Your task to perform on an android device: clear history in the chrome app Image 0: 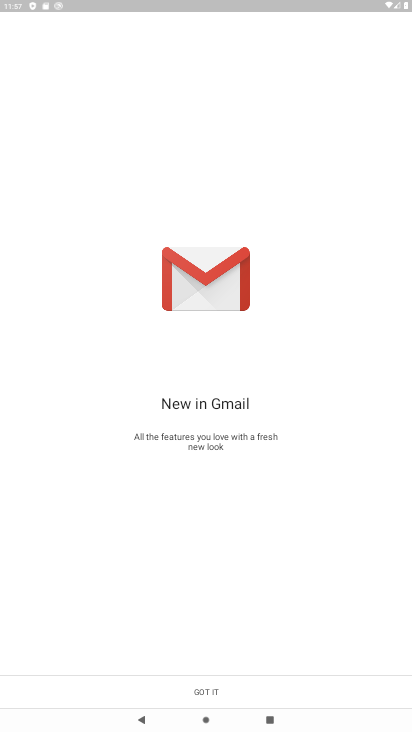
Step 0: press home button
Your task to perform on an android device: clear history in the chrome app Image 1: 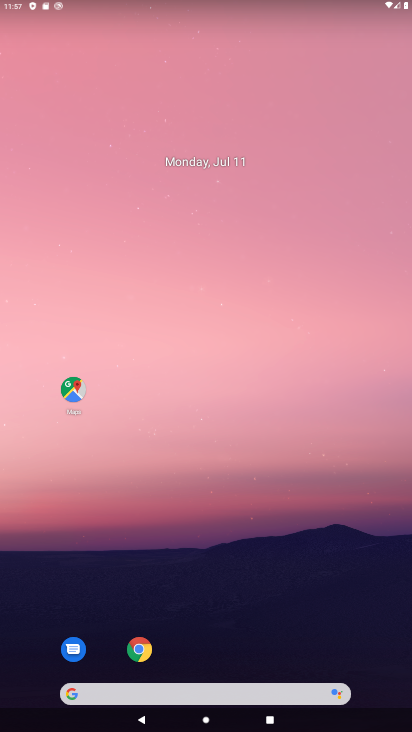
Step 1: drag from (225, 424) to (302, 157)
Your task to perform on an android device: clear history in the chrome app Image 2: 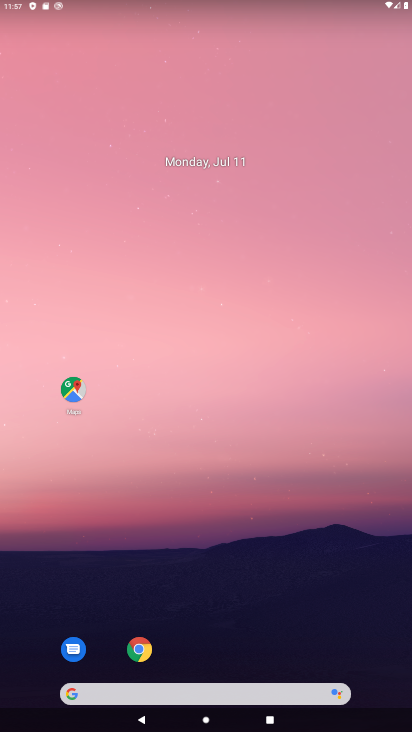
Step 2: drag from (194, 671) to (294, 2)
Your task to perform on an android device: clear history in the chrome app Image 3: 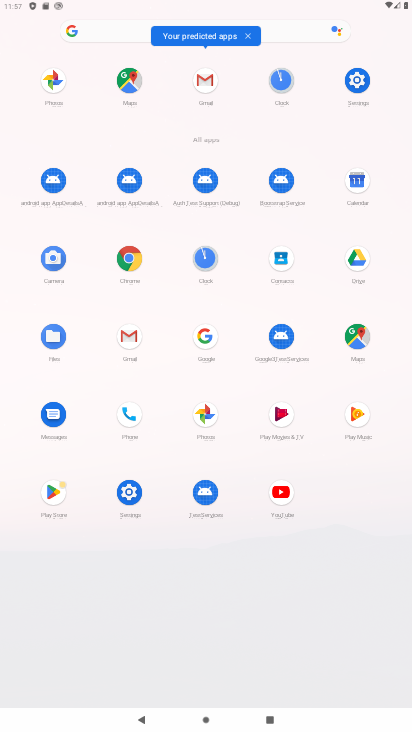
Step 3: click (137, 273)
Your task to perform on an android device: clear history in the chrome app Image 4: 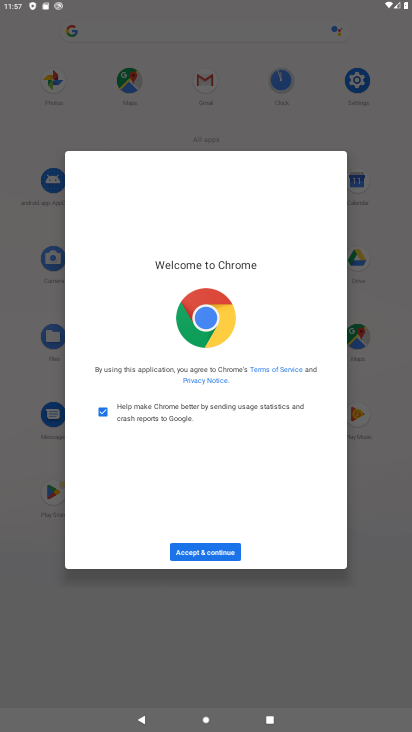
Step 4: click (244, 551)
Your task to perform on an android device: clear history in the chrome app Image 5: 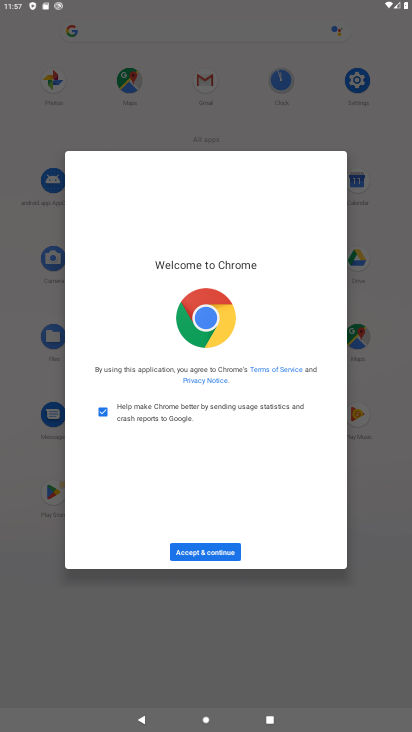
Step 5: click (223, 546)
Your task to perform on an android device: clear history in the chrome app Image 6: 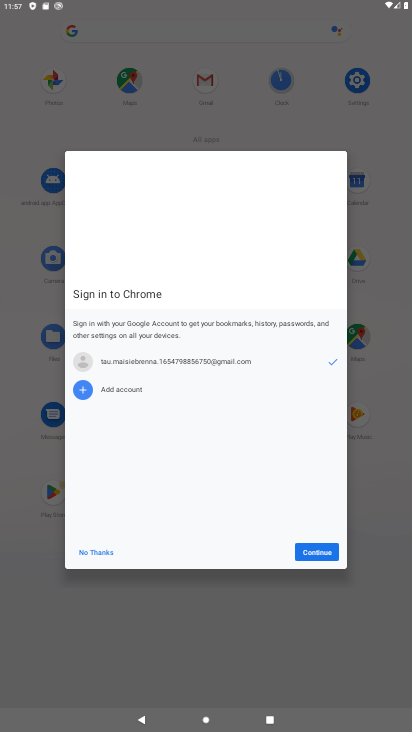
Step 6: click (305, 551)
Your task to perform on an android device: clear history in the chrome app Image 7: 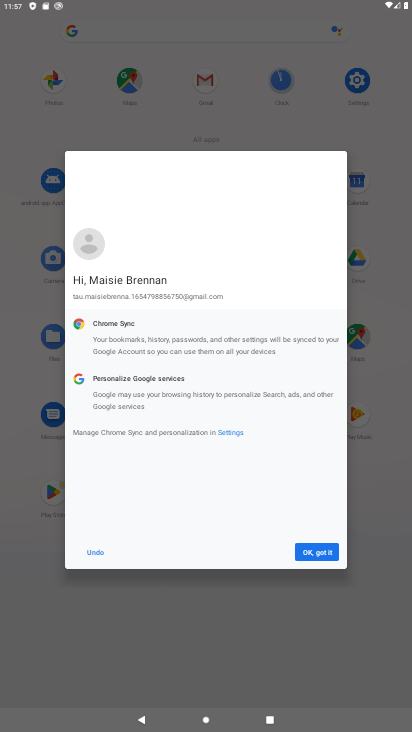
Step 7: click (331, 561)
Your task to perform on an android device: clear history in the chrome app Image 8: 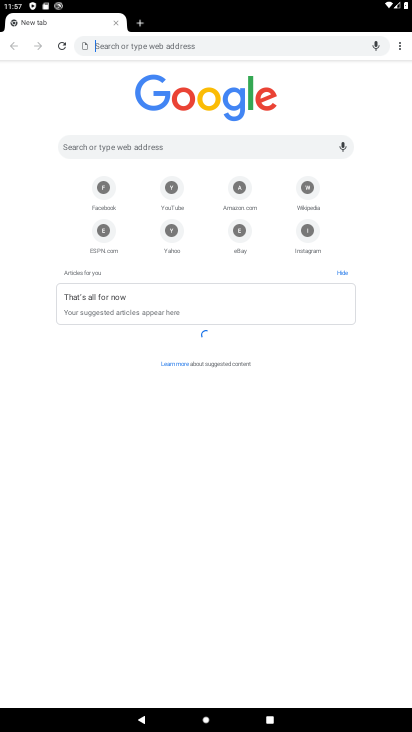
Step 8: drag from (403, 49) to (366, 135)
Your task to perform on an android device: clear history in the chrome app Image 9: 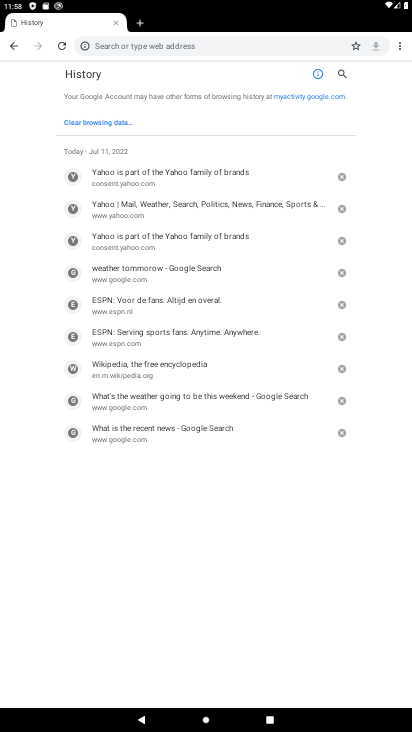
Step 9: click (116, 118)
Your task to perform on an android device: clear history in the chrome app Image 10: 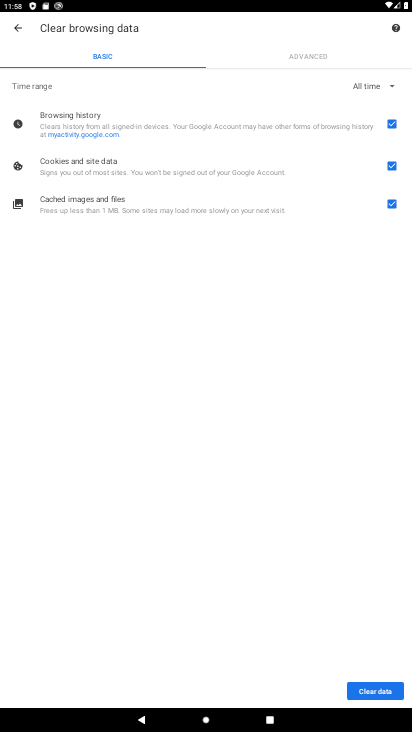
Step 10: click (375, 687)
Your task to perform on an android device: clear history in the chrome app Image 11: 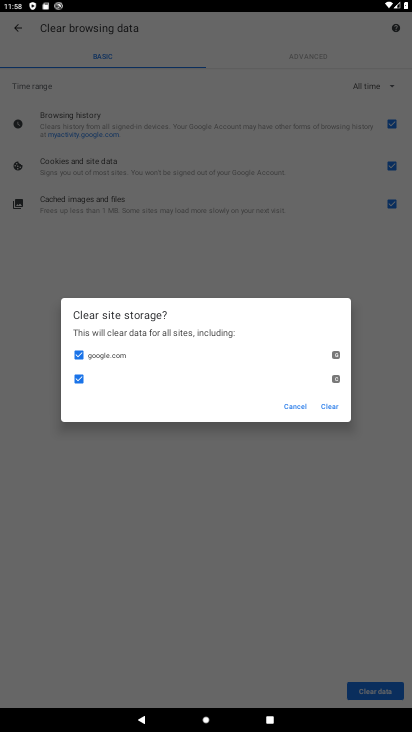
Step 11: click (334, 401)
Your task to perform on an android device: clear history in the chrome app Image 12: 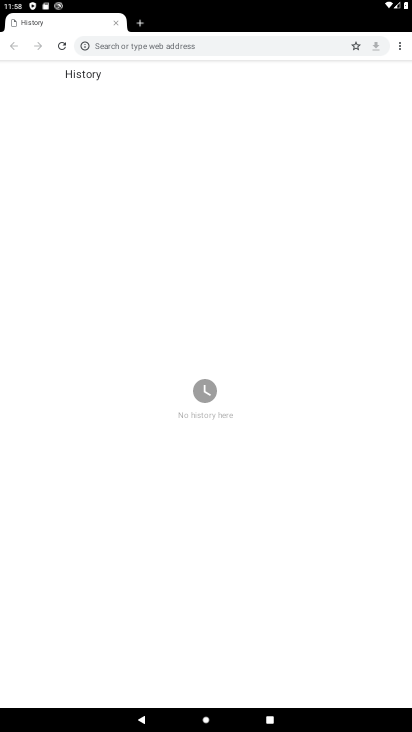
Step 12: task complete